Your task to perform on an android device: see tabs open on other devices in the chrome app Image 0: 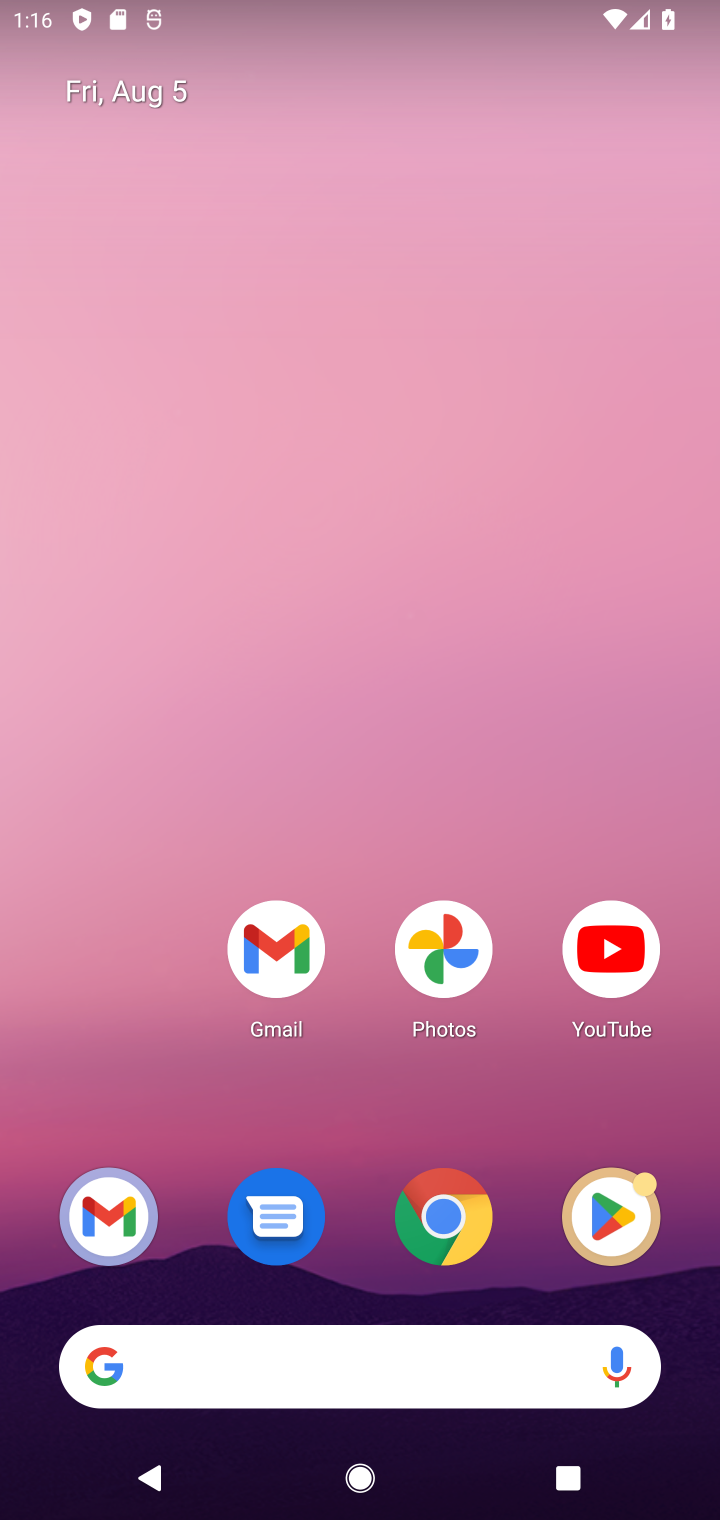
Step 0: click (454, 1207)
Your task to perform on an android device: see tabs open on other devices in the chrome app Image 1: 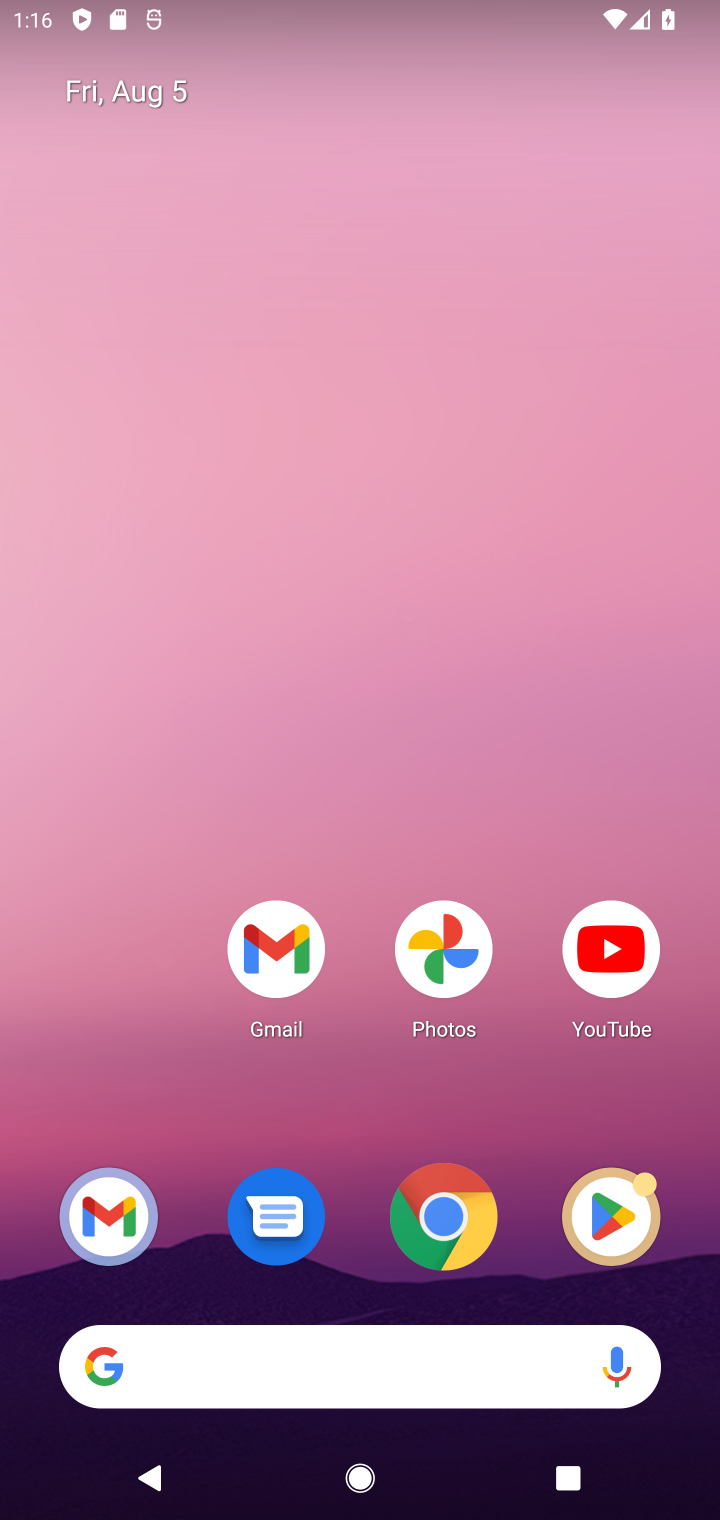
Step 1: click (454, 1207)
Your task to perform on an android device: see tabs open on other devices in the chrome app Image 2: 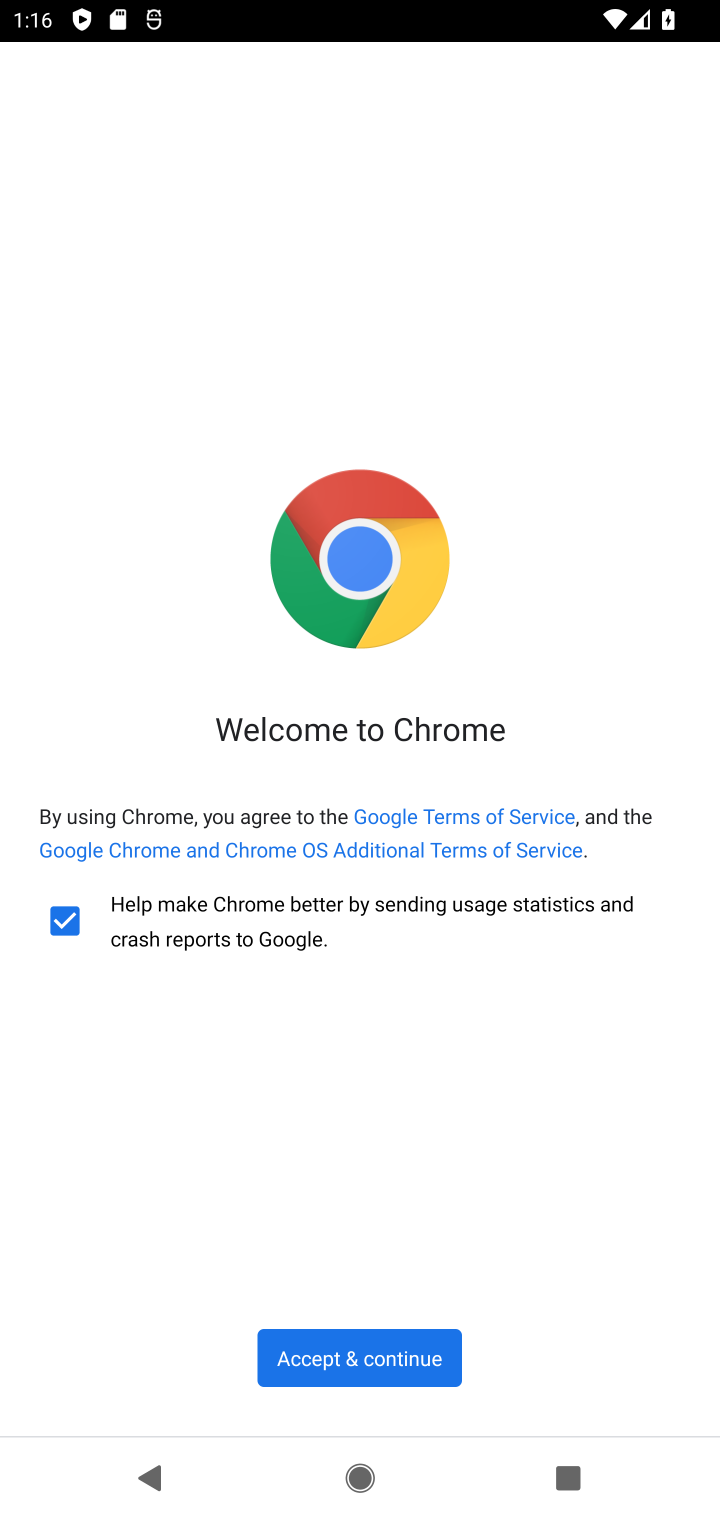
Step 2: click (389, 1372)
Your task to perform on an android device: see tabs open on other devices in the chrome app Image 3: 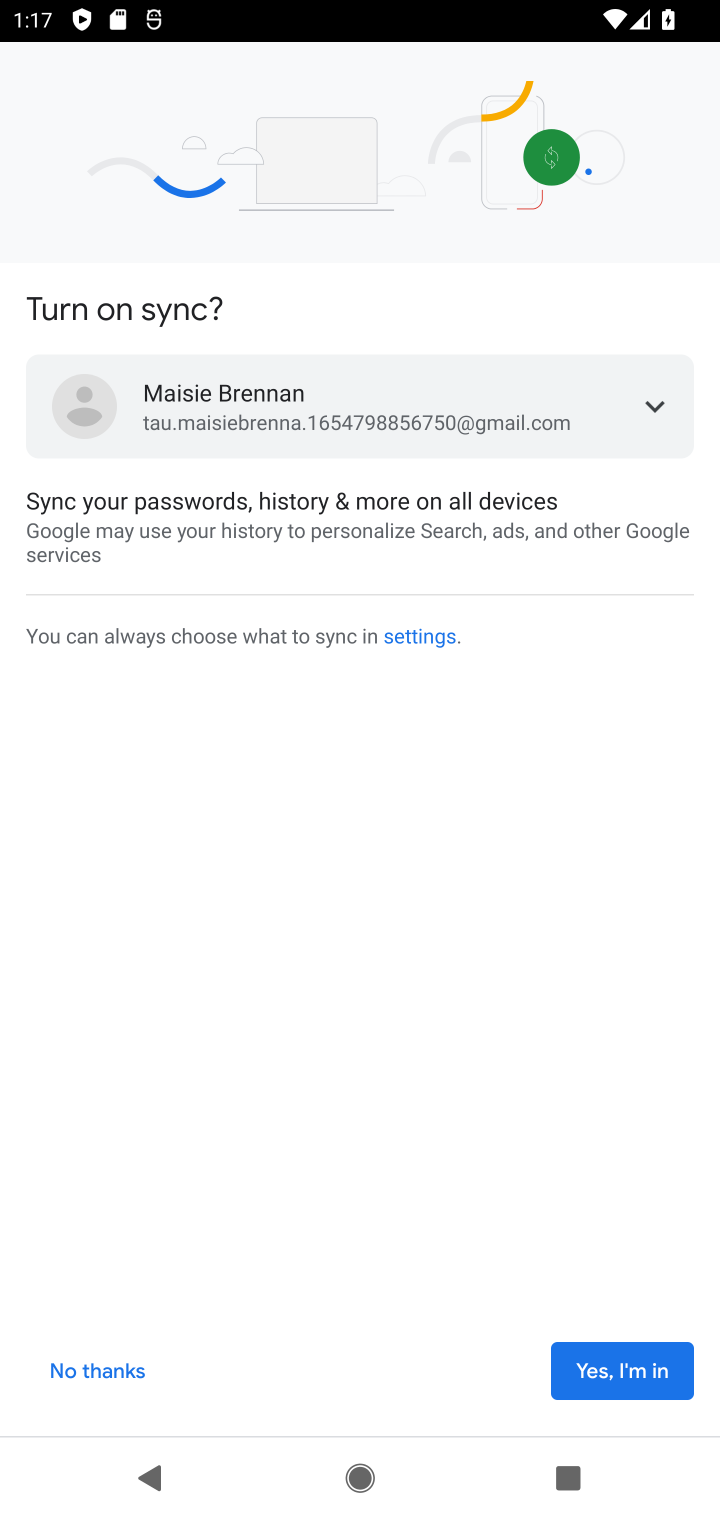
Step 3: click (552, 1372)
Your task to perform on an android device: see tabs open on other devices in the chrome app Image 4: 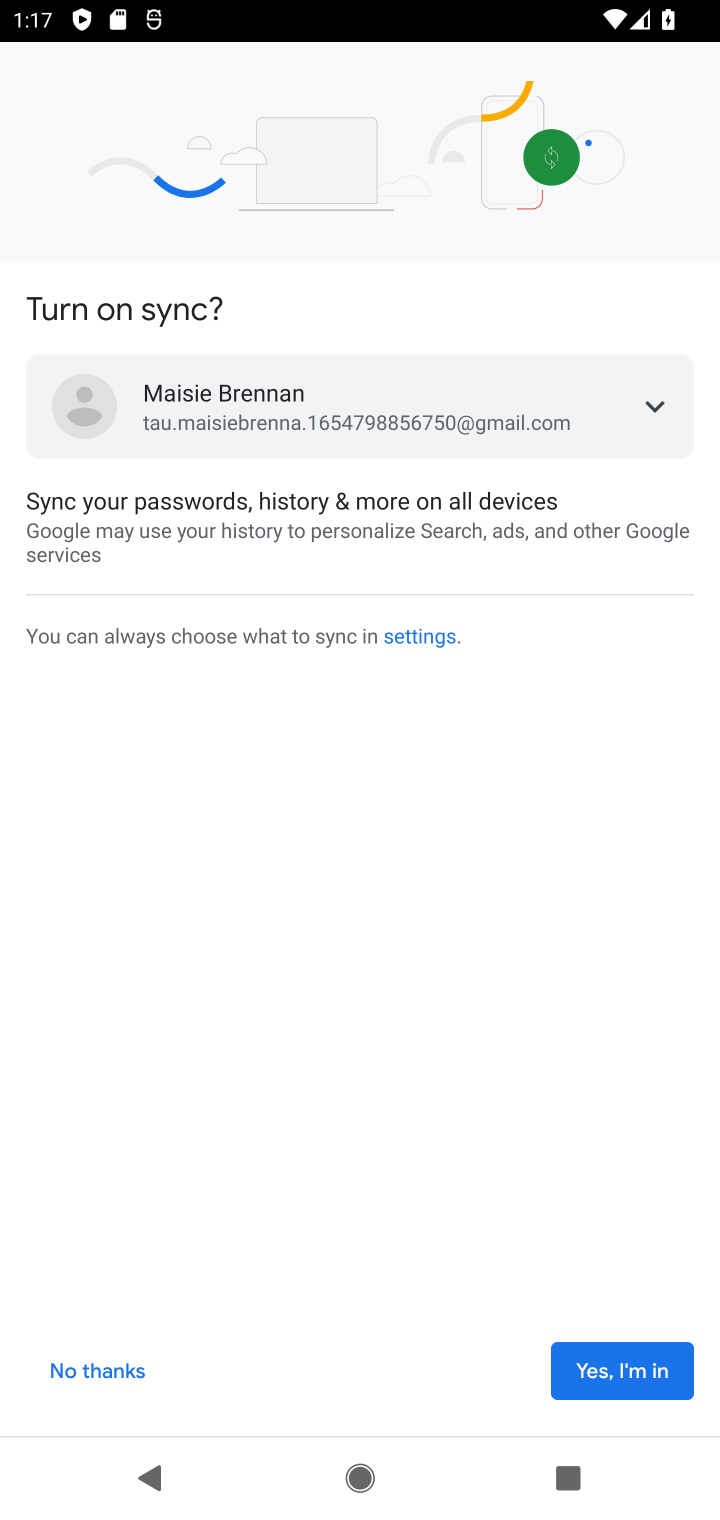
Step 4: click (566, 1372)
Your task to perform on an android device: see tabs open on other devices in the chrome app Image 5: 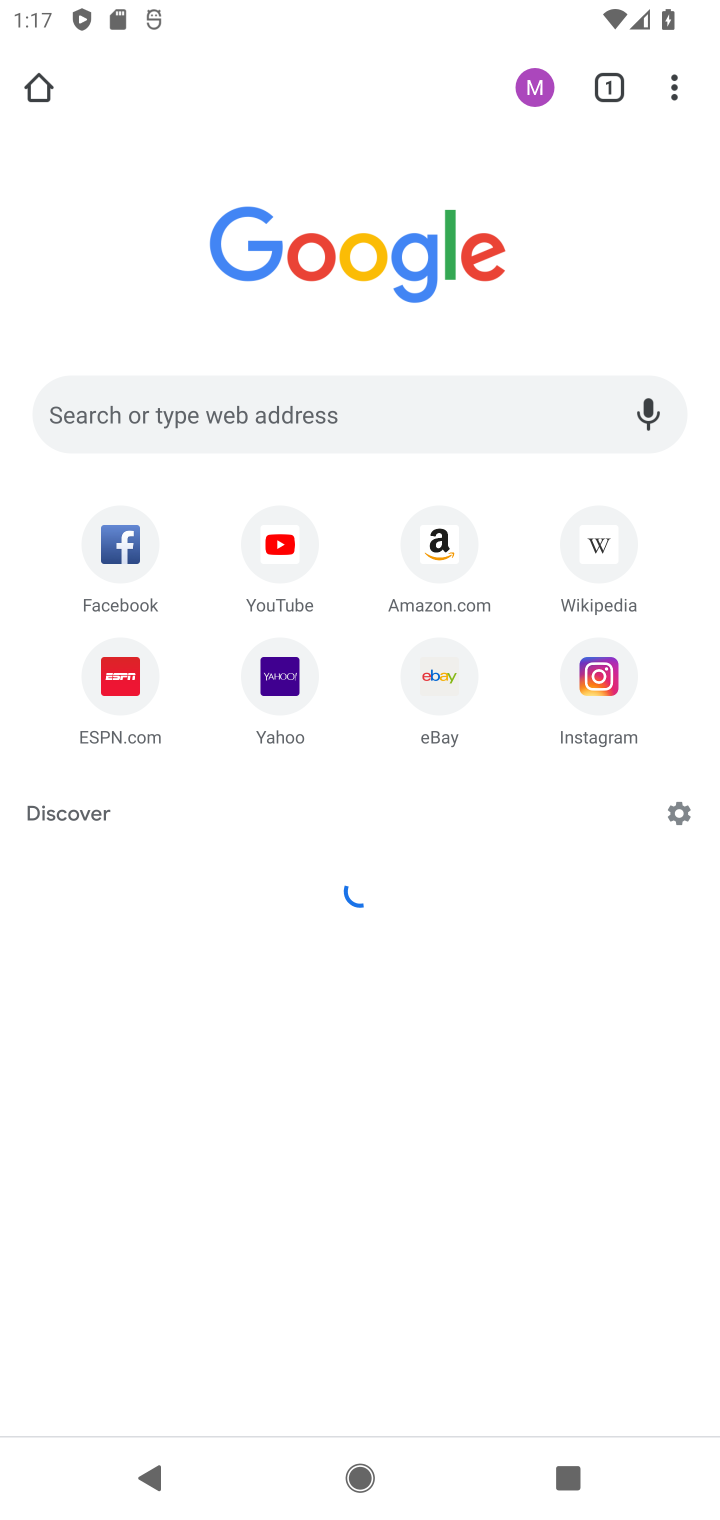
Step 5: click (674, 80)
Your task to perform on an android device: see tabs open on other devices in the chrome app Image 6: 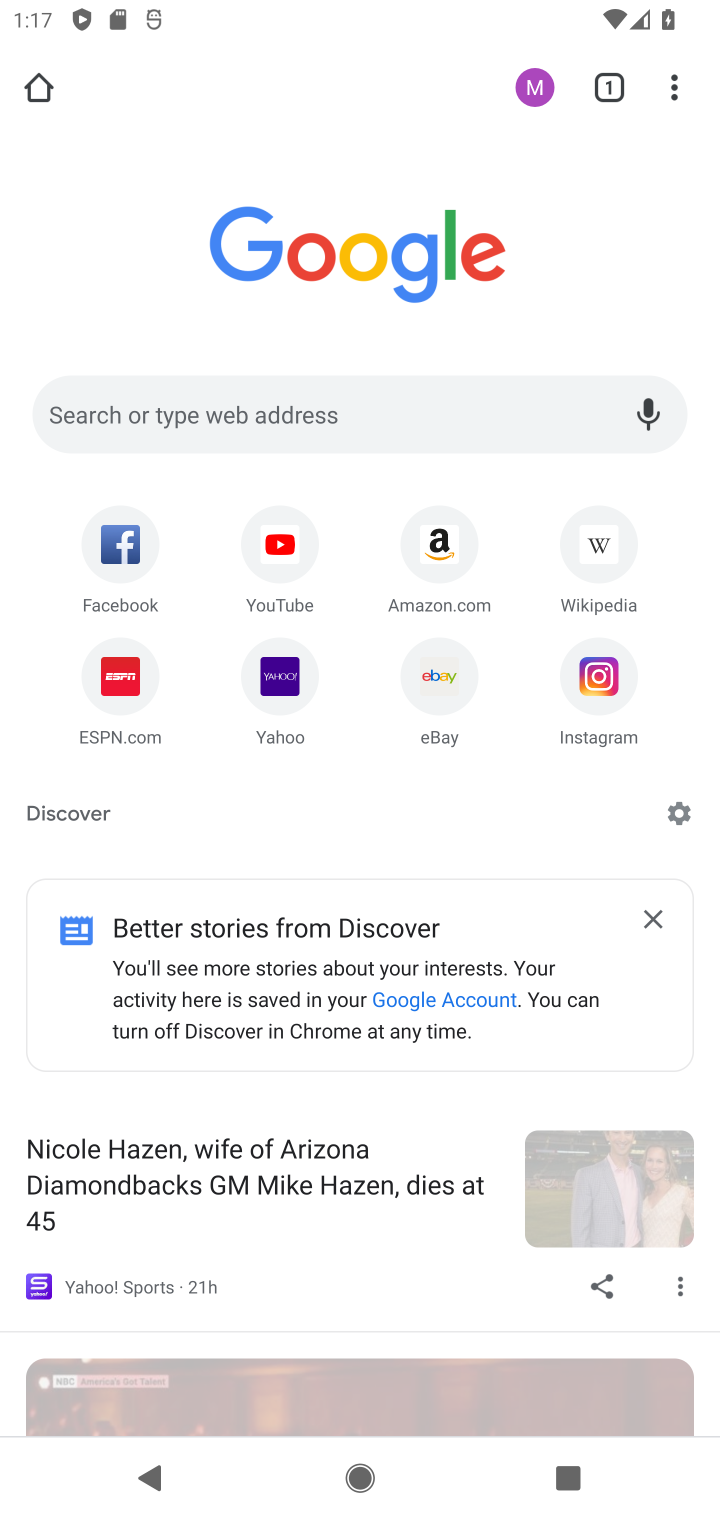
Step 6: click (674, 80)
Your task to perform on an android device: see tabs open on other devices in the chrome app Image 7: 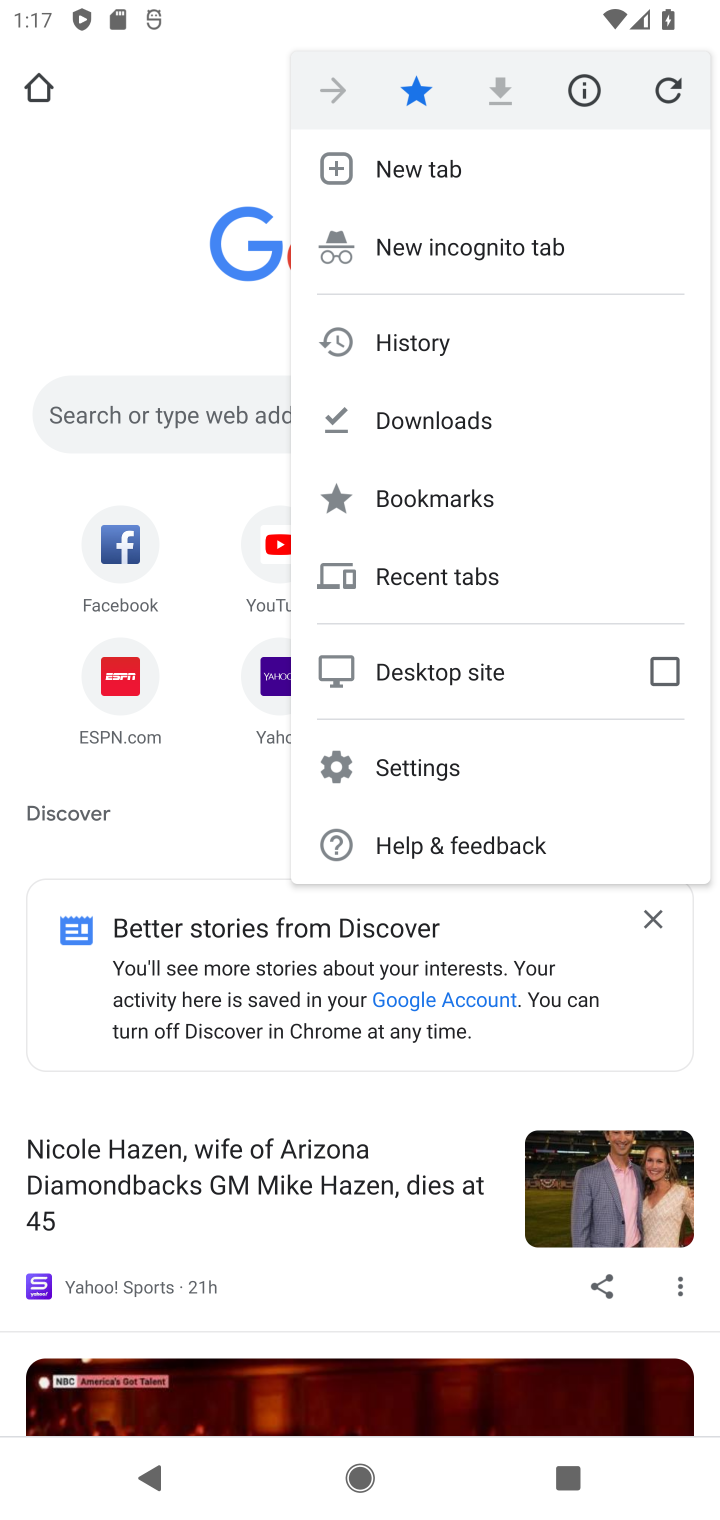
Step 7: click (469, 578)
Your task to perform on an android device: see tabs open on other devices in the chrome app Image 8: 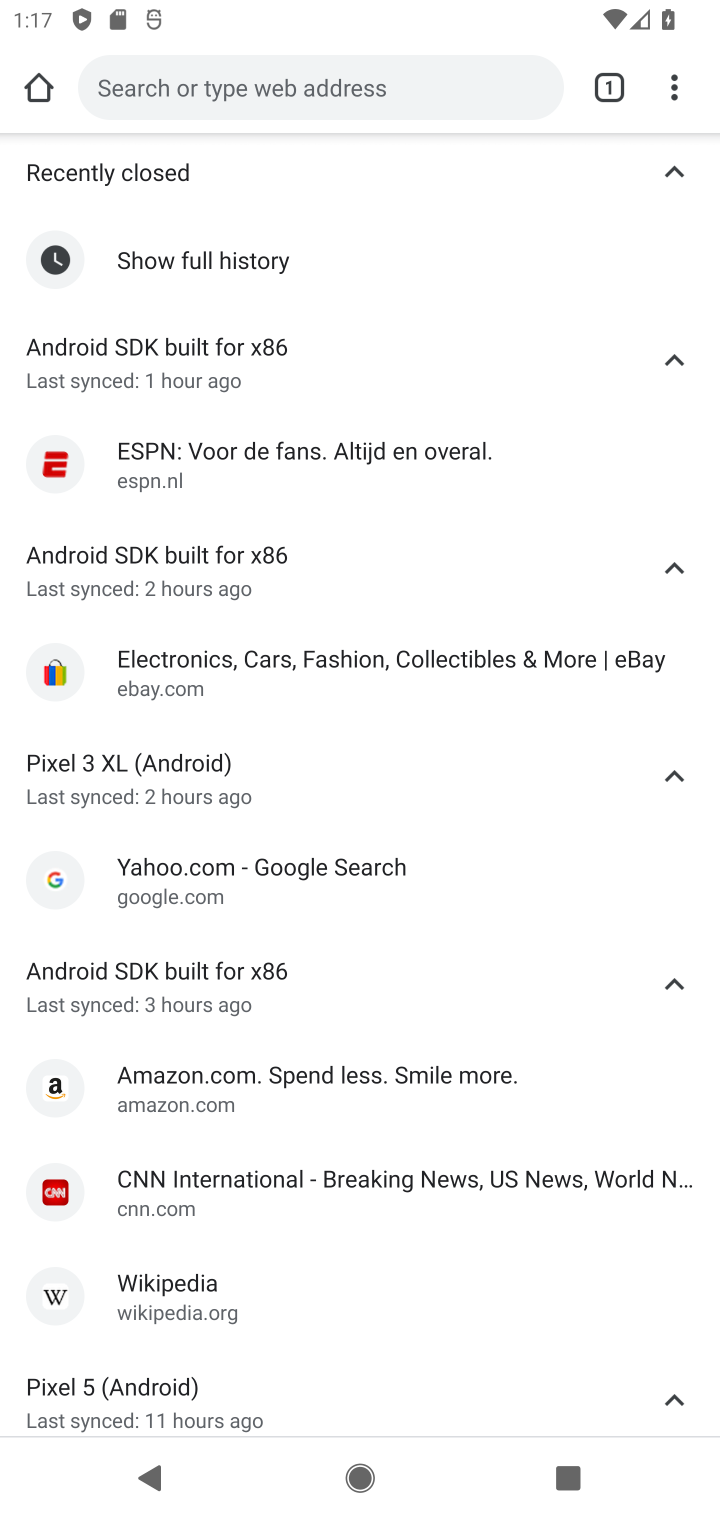
Step 8: task complete